Your task to perform on an android device: Search for vegetarian restaurants on Maps Image 0: 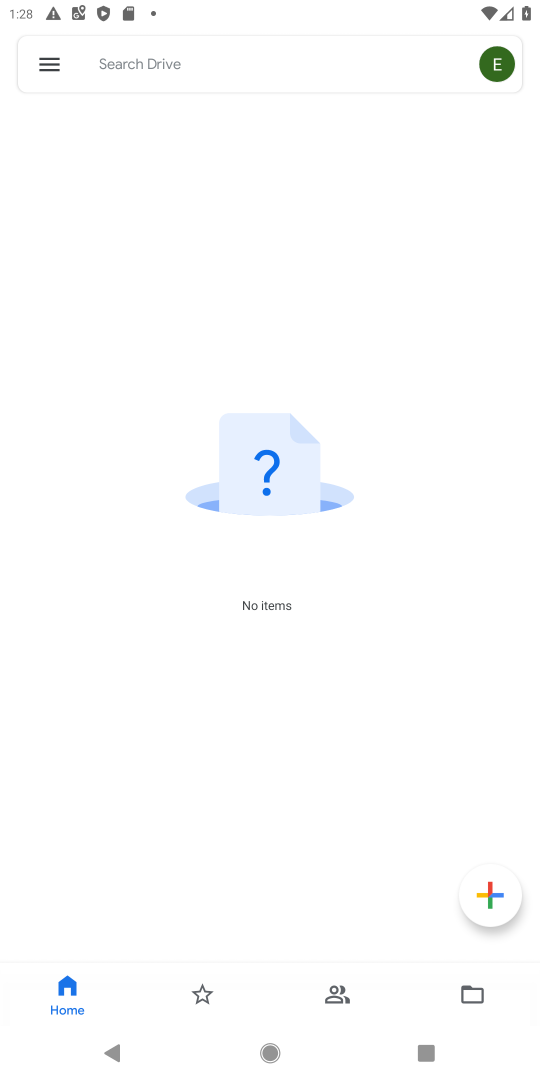
Step 0: press home button
Your task to perform on an android device: Search for vegetarian restaurants on Maps Image 1: 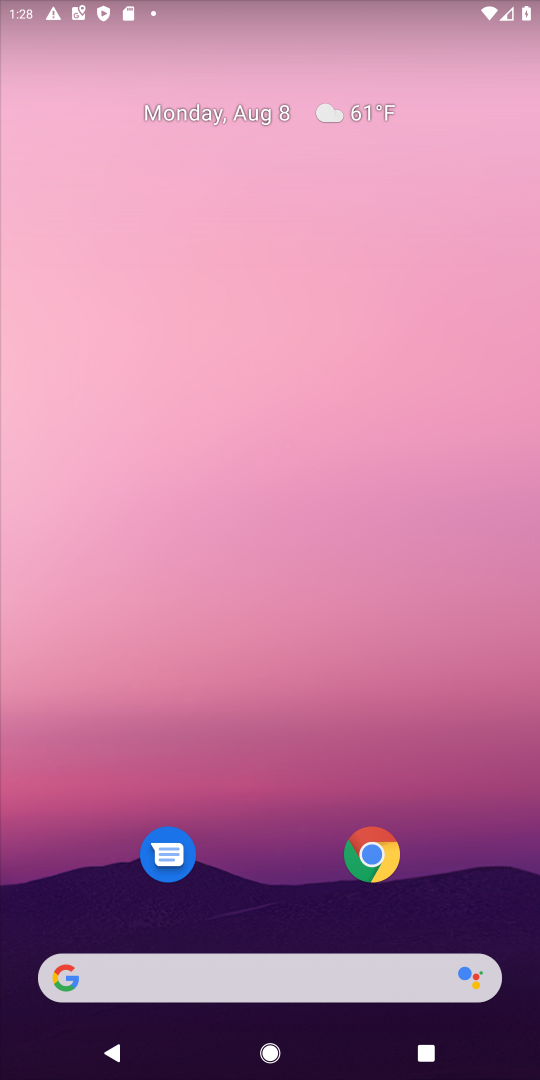
Step 1: drag from (37, 1042) to (270, 1)
Your task to perform on an android device: Search for vegetarian restaurants on Maps Image 2: 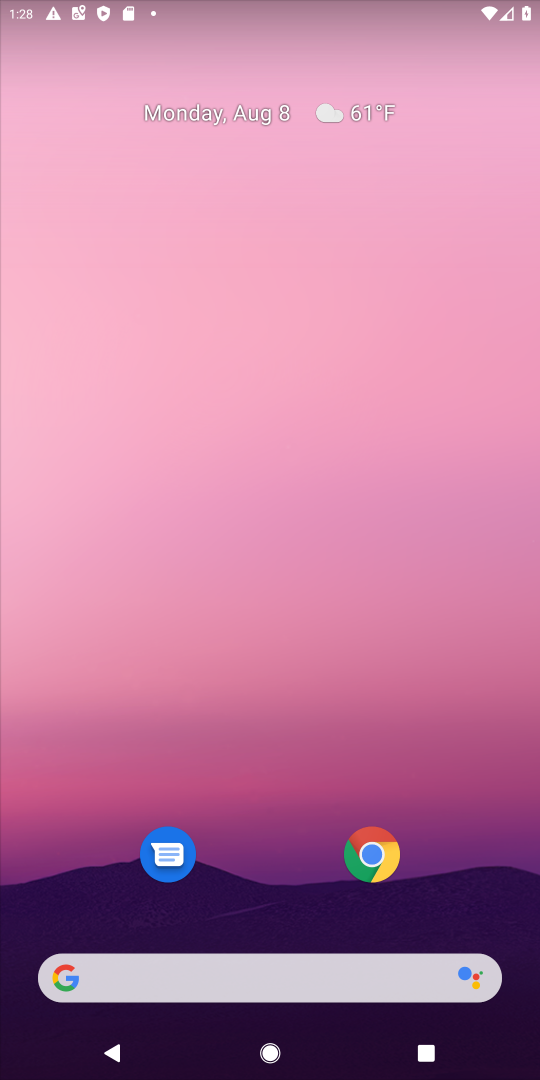
Step 2: drag from (58, 1044) to (200, 152)
Your task to perform on an android device: Search for vegetarian restaurants on Maps Image 3: 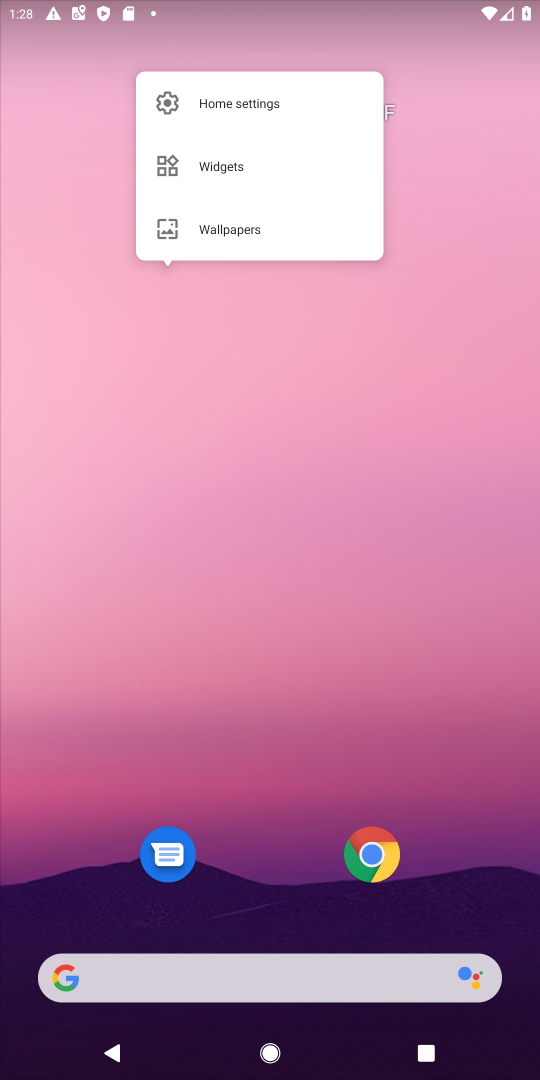
Step 3: drag from (49, 1057) to (390, 45)
Your task to perform on an android device: Search for vegetarian restaurants on Maps Image 4: 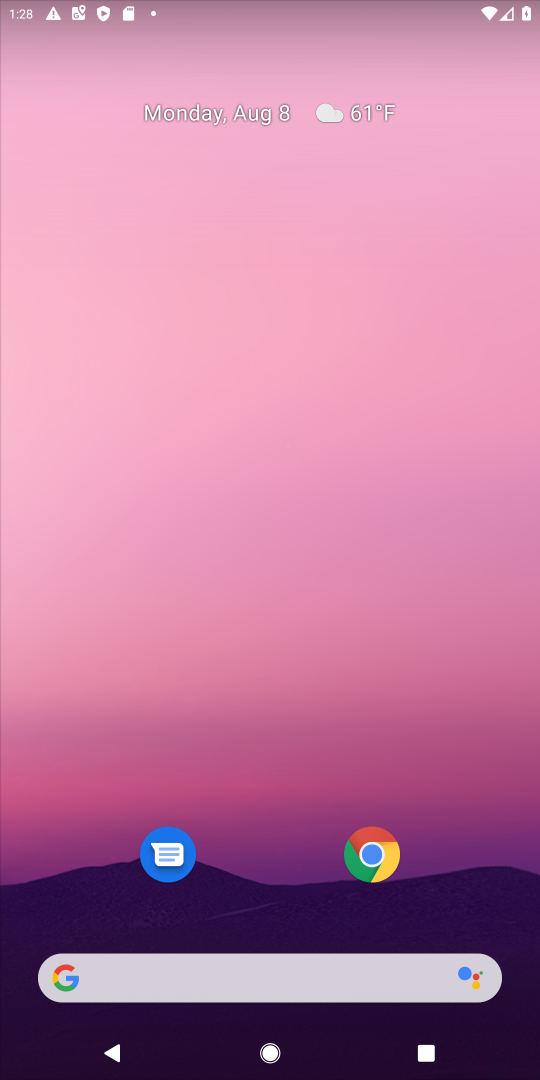
Step 4: drag from (51, 989) to (229, 253)
Your task to perform on an android device: Search for vegetarian restaurants on Maps Image 5: 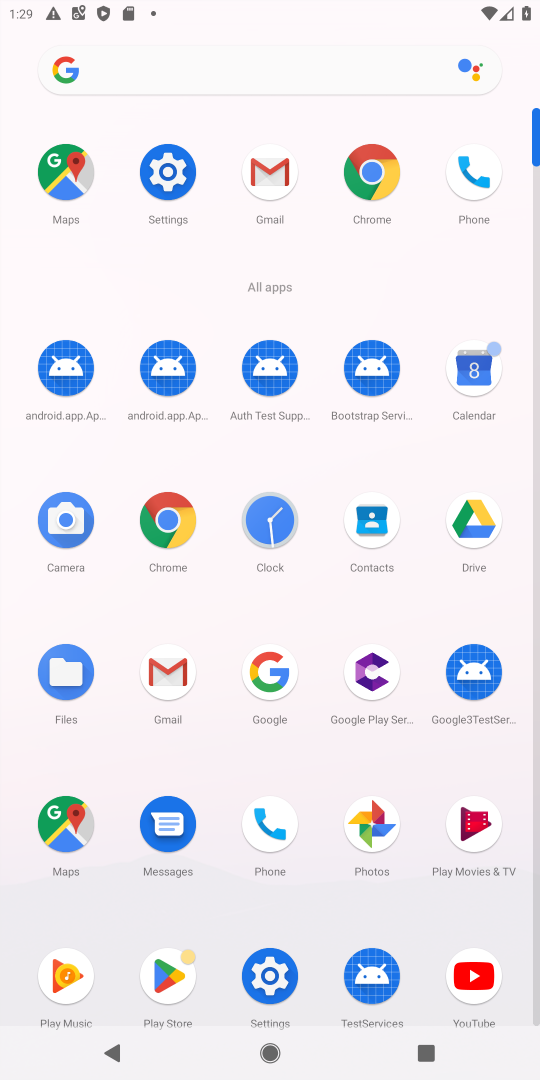
Step 5: click (73, 833)
Your task to perform on an android device: Search for vegetarian restaurants on Maps Image 6: 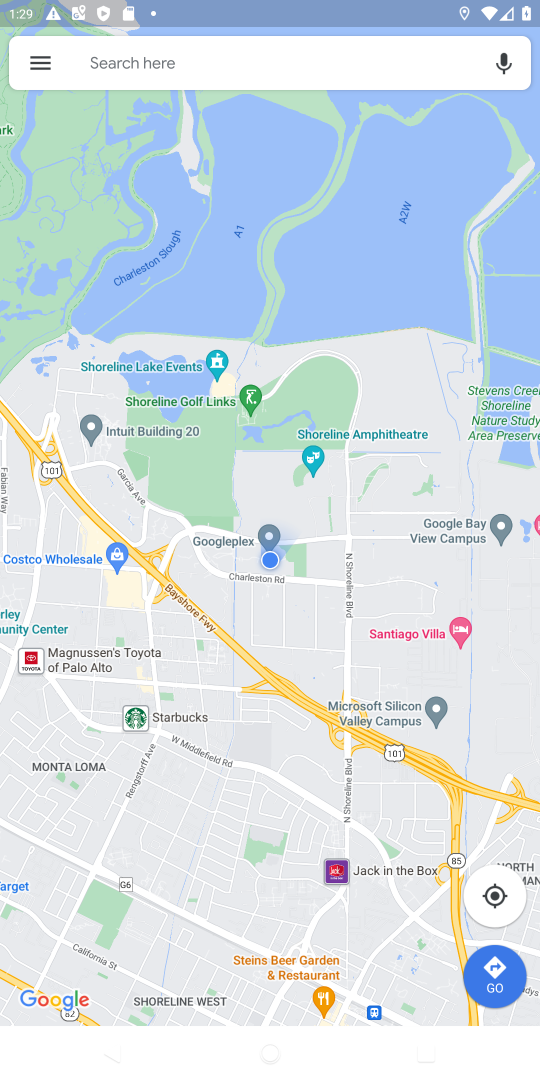
Step 6: click (144, 66)
Your task to perform on an android device: Search for vegetarian restaurants on Maps Image 7: 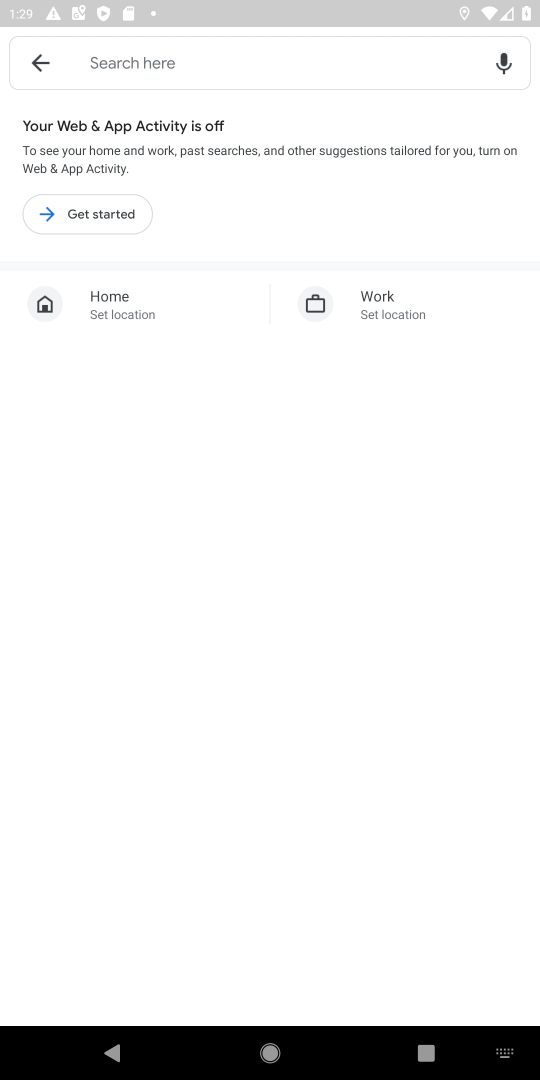
Step 7: click (33, 54)
Your task to perform on an android device: Search for vegetarian restaurants on Maps Image 8: 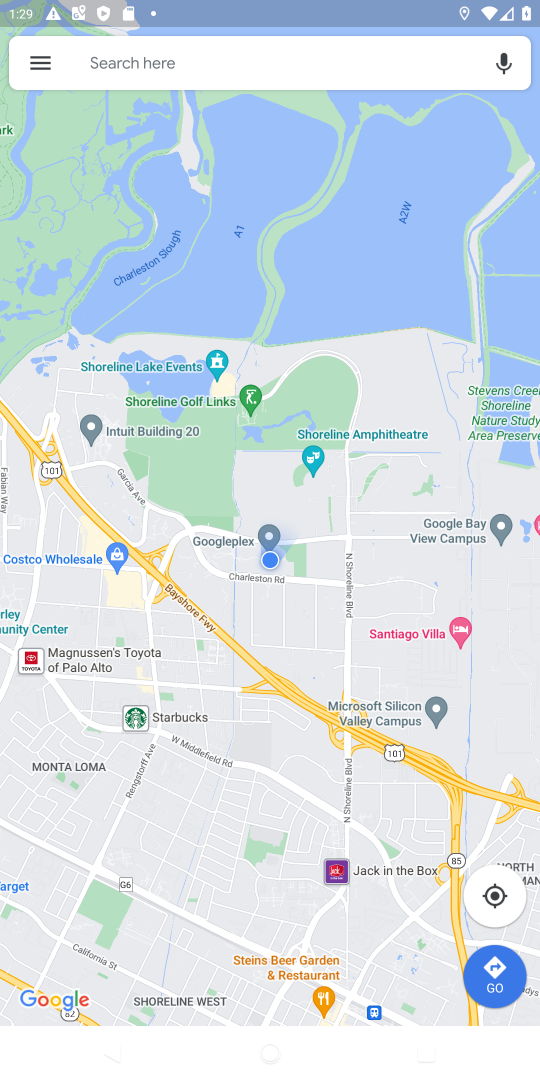
Step 8: click (110, 63)
Your task to perform on an android device: Search for vegetarian restaurants on Maps Image 9: 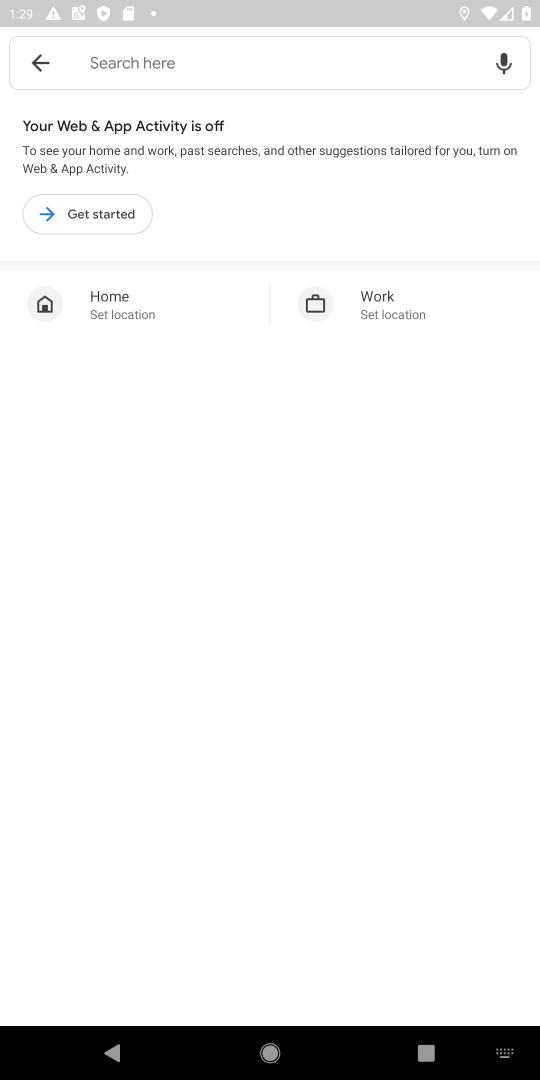
Step 9: type "vegetarian restaurants"
Your task to perform on an android device: Search for vegetarian restaurants on Maps Image 10: 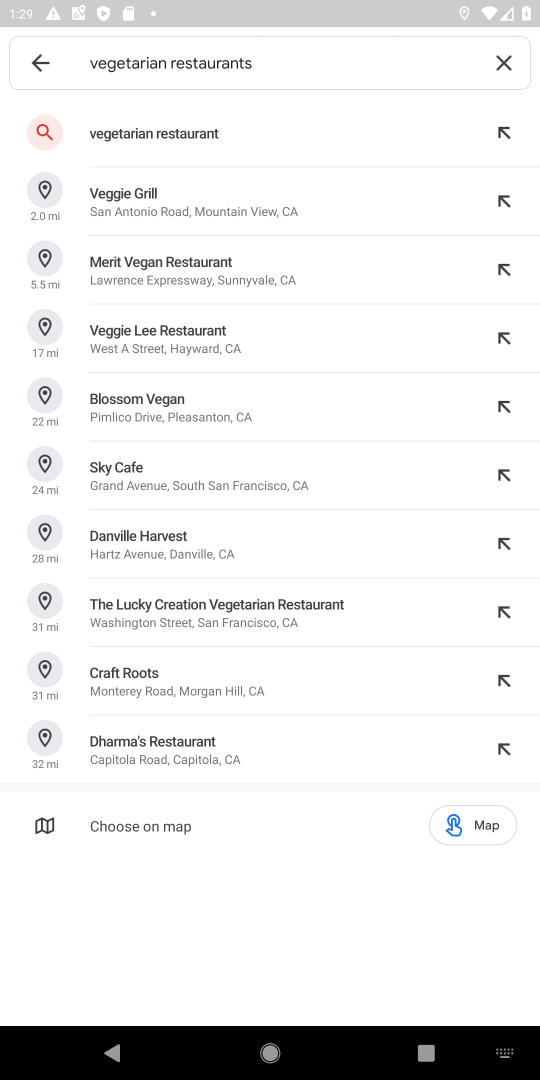
Step 10: click (189, 129)
Your task to perform on an android device: Search for vegetarian restaurants on Maps Image 11: 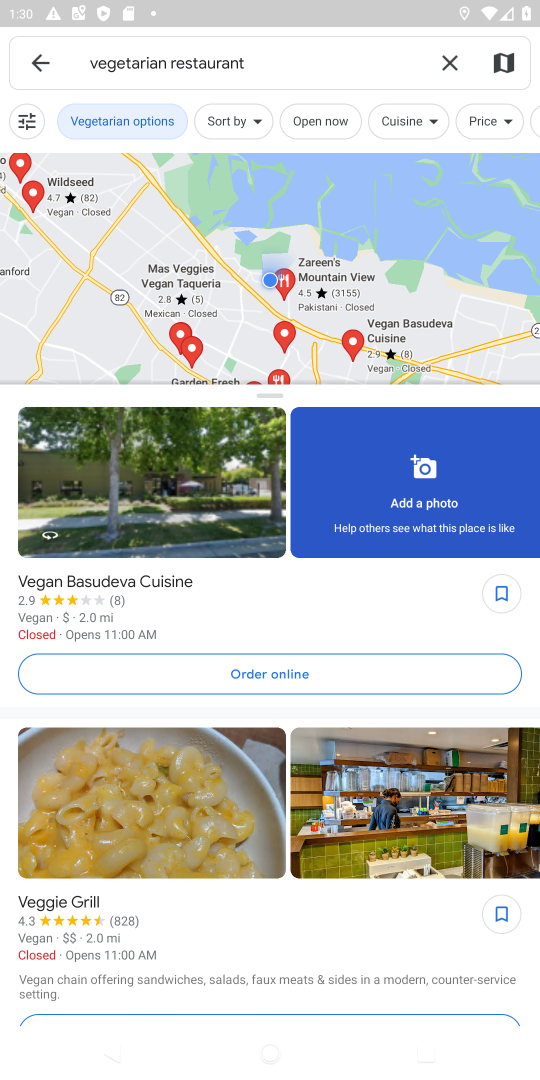
Step 11: task complete